Your task to perform on an android device: turn off javascript in the chrome app Image 0: 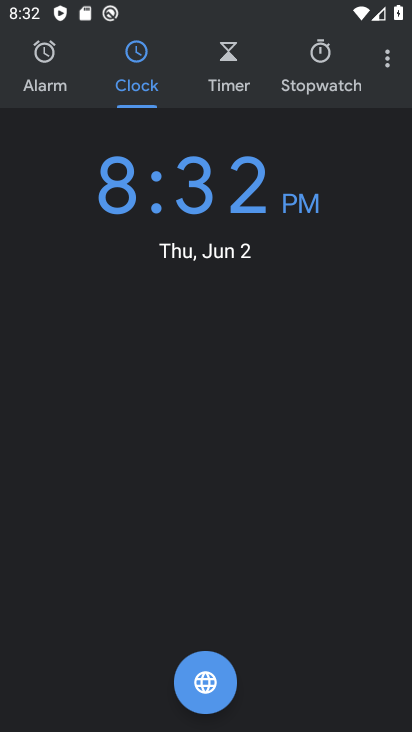
Step 0: press home button
Your task to perform on an android device: turn off javascript in the chrome app Image 1: 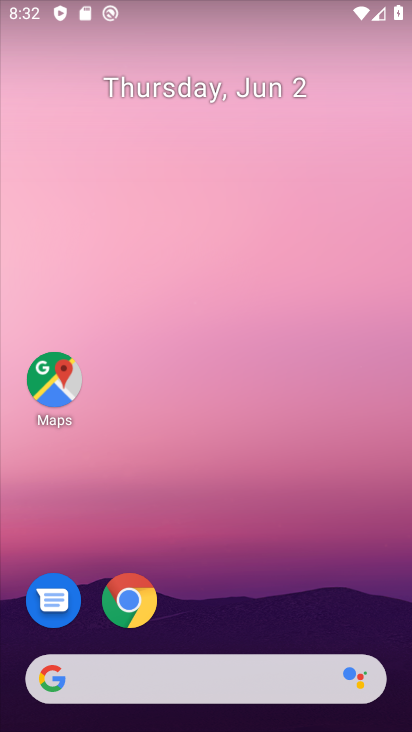
Step 1: click (141, 595)
Your task to perform on an android device: turn off javascript in the chrome app Image 2: 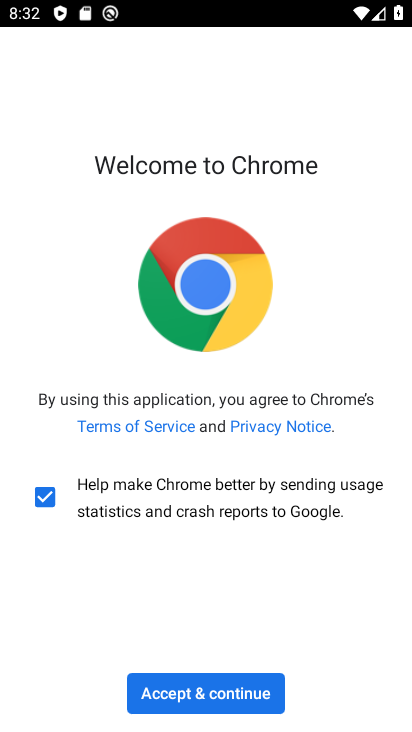
Step 2: click (206, 687)
Your task to perform on an android device: turn off javascript in the chrome app Image 3: 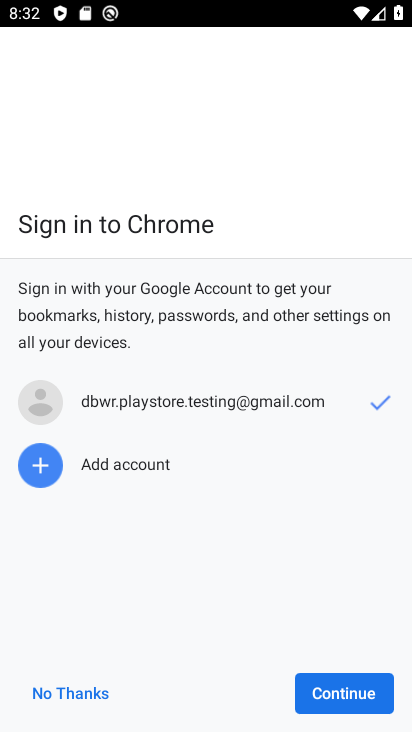
Step 3: click (309, 693)
Your task to perform on an android device: turn off javascript in the chrome app Image 4: 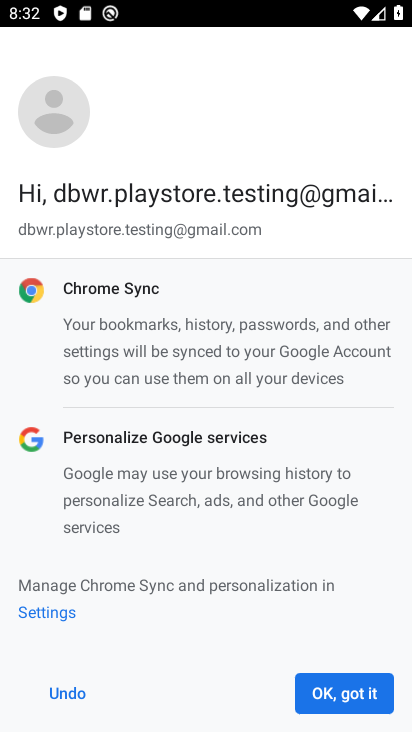
Step 4: click (309, 693)
Your task to perform on an android device: turn off javascript in the chrome app Image 5: 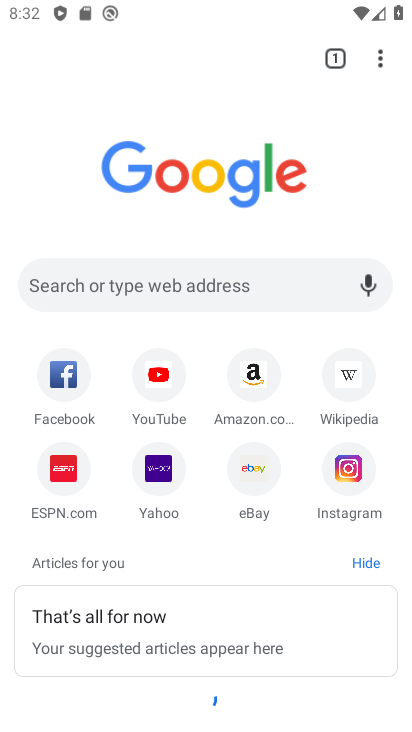
Step 5: click (377, 57)
Your task to perform on an android device: turn off javascript in the chrome app Image 6: 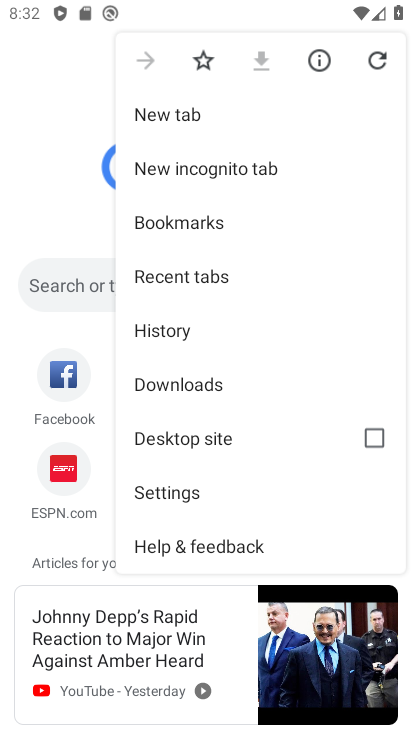
Step 6: click (177, 494)
Your task to perform on an android device: turn off javascript in the chrome app Image 7: 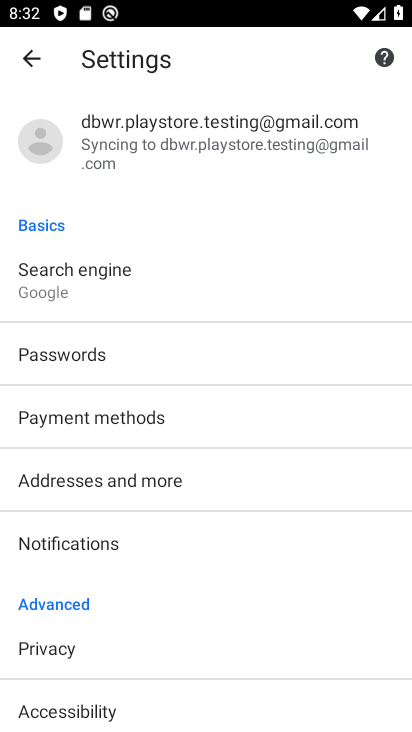
Step 7: drag from (142, 691) to (184, 169)
Your task to perform on an android device: turn off javascript in the chrome app Image 8: 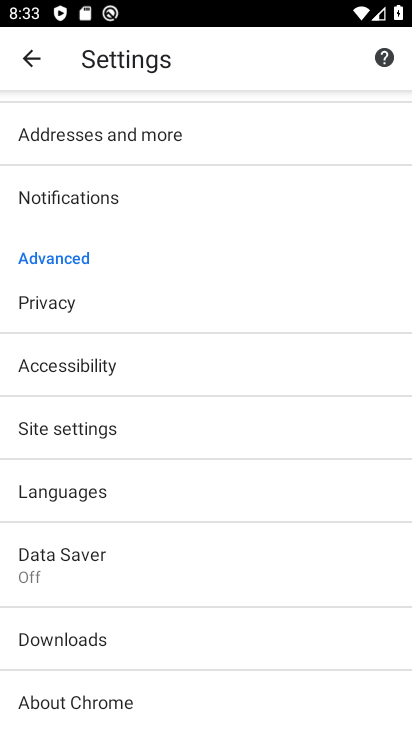
Step 8: click (146, 434)
Your task to perform on an android device: turn off javascript in the chrome app Image 9: 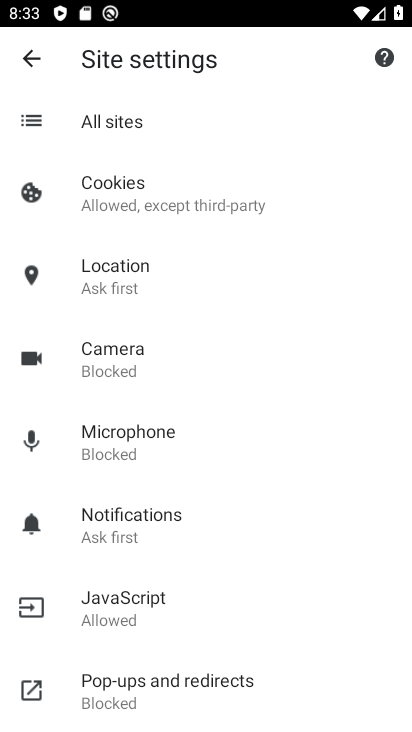
Step 9: click (173, 605)
Your task to perform on an android device: turn off javascript in the chrome app Image 10: 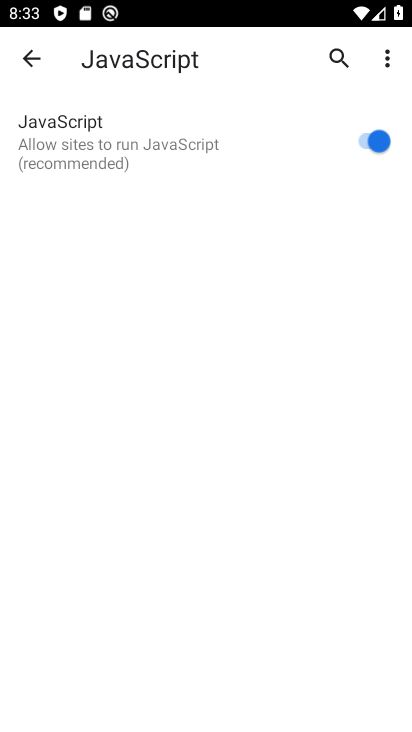
Step 10: click (367, 140)
Your task to perform on an android device: turn off javascript in the chrome app Image 11: 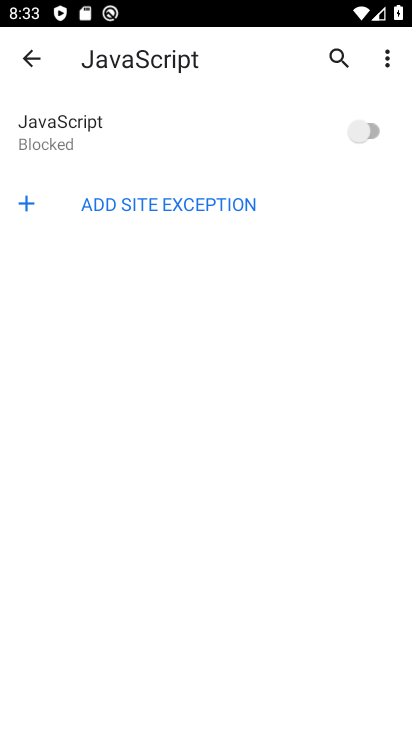
Step 11: task complete